Your task to perform on an android device: Search for pizza restaurants on Maps Image 0: 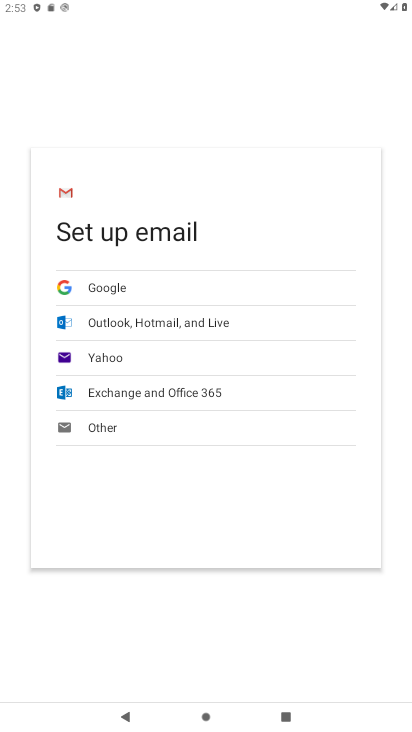
Step 0: press back button
Your task to perform on an android device: Search for pizza restaurants on Maps Image 1: 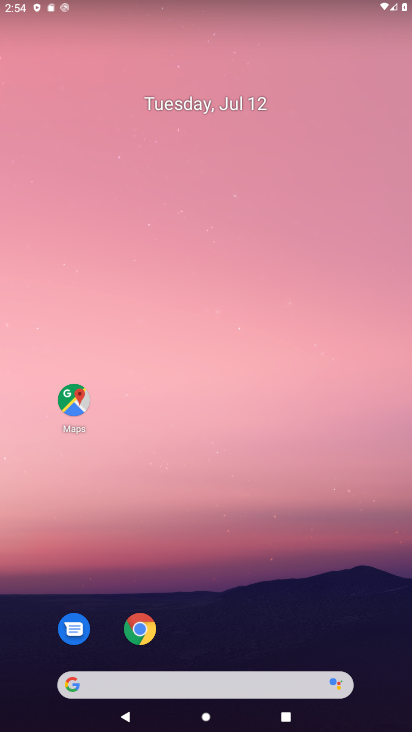
Step 1: drag from (296, 634) to (129, 49)
Your task to perform on an android device: Search for pizza restaurants on Maps Image 2: 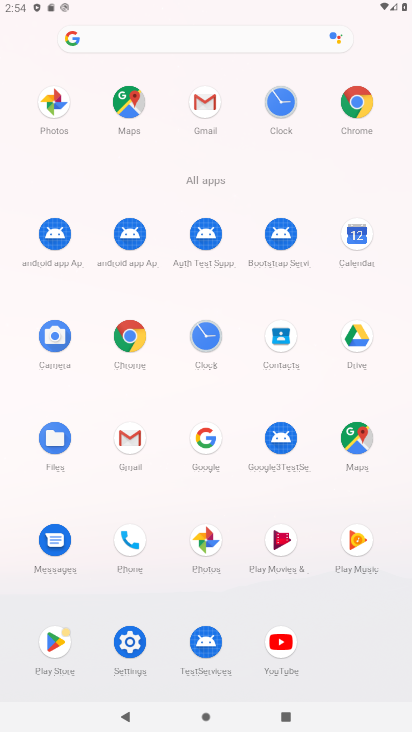
Step 2: click (207, 15)
Your task to perform on an android device: Search for pizza restaurants on Maps Image 3: 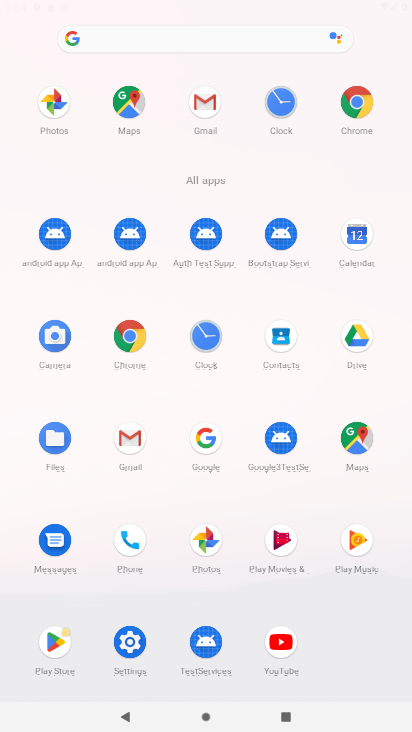
Step 3: click (157, 6)
Your task to perform on an android device: Search for pizza restaurants on Maps Image 4: 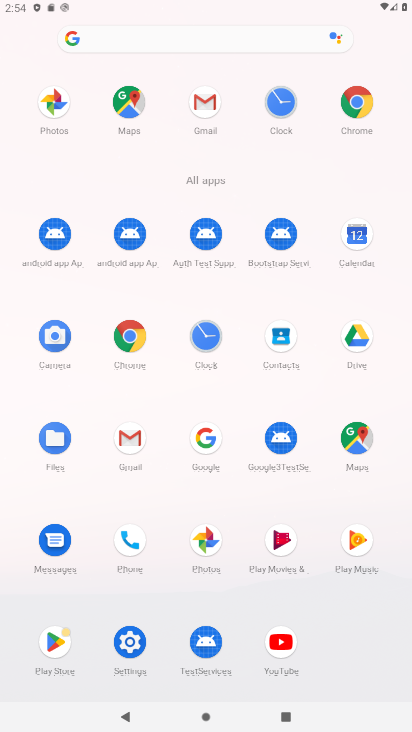
Step 4: click (346, 439)
Your task to perform on an android device: Search for pizza restaurants on Maps Image 5: 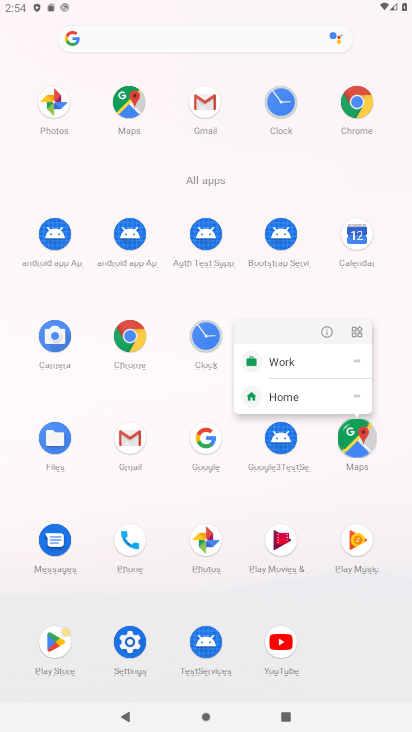
Step 5: click (360, 434)
Your task to perform on an android device: Search for pizza restaurants on Maps Image 6: 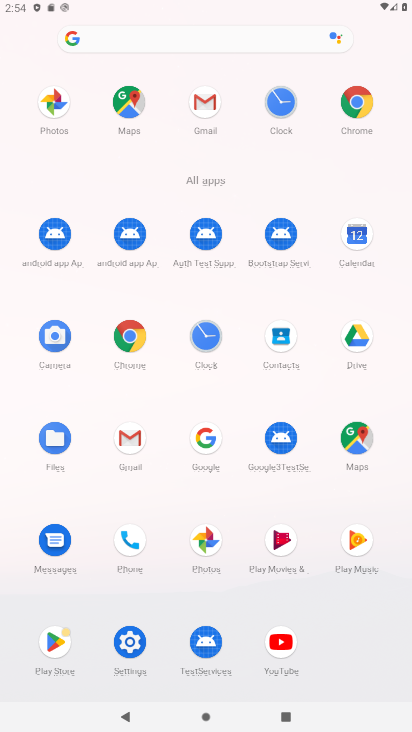
Step 6: click (365, 432)
Your task to perform on an android device: Search for pizza restaurants on Maps Image 7: 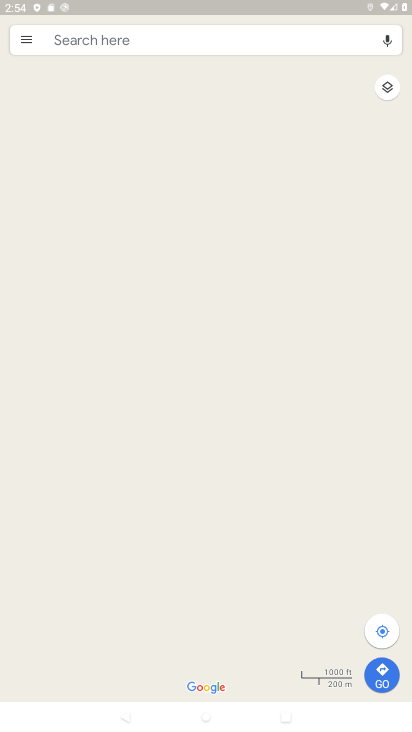
Step 7: click (65, 41)
Your task to perform on an android device: Search for pizza restaurants on Maps Image 8: 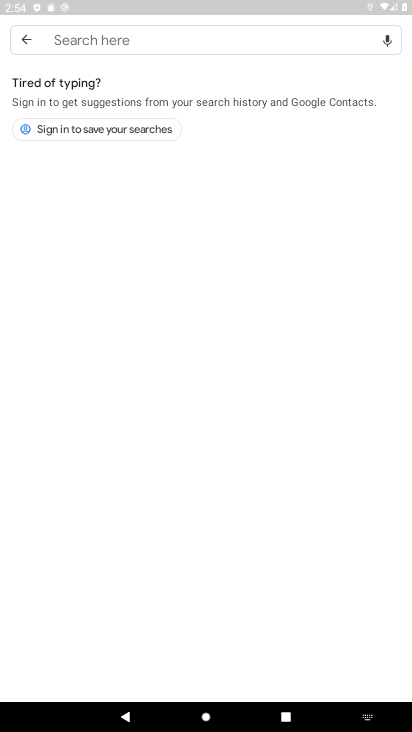
Step 8: click (14, 28)
Your task to perform on an android device: Search for pizza restaurants on Maps Image 9: 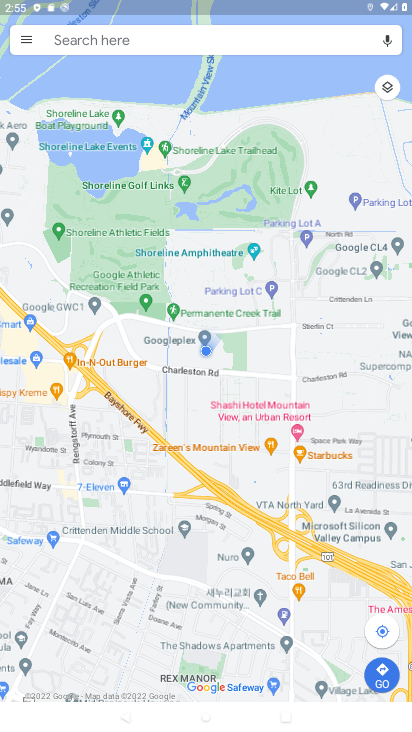
Step 9: click (83, 24)
Your task to perform on an android device: Search for pizza restaurants on Maps Image 10: 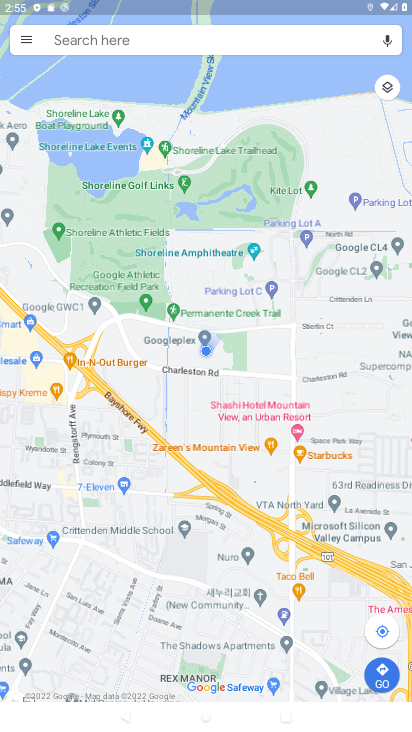
Step 10: click (67, 35)
Your task to perform on an android device: Search for pizza restaurants on Maps Image 11: 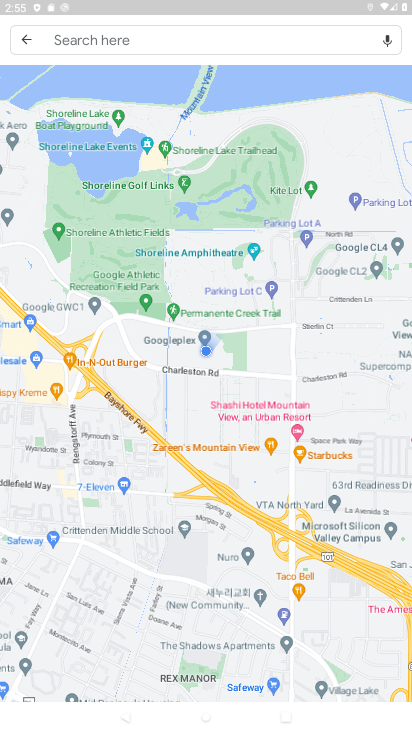
Step 11: click (73, 41)
Your task to perform on an android device: Search for pizza restaurants on Maps Image 12: 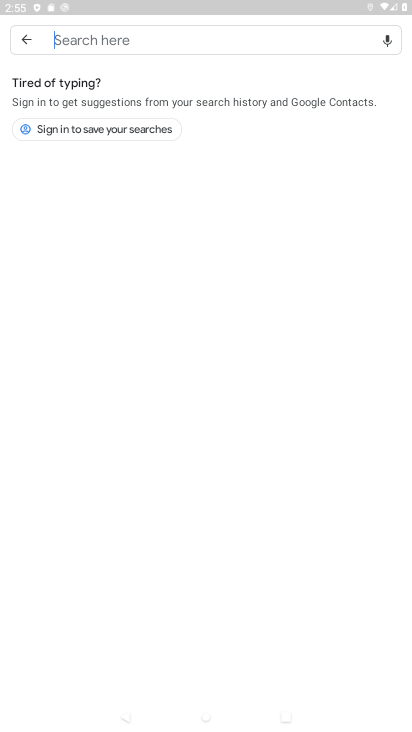
Step 12: click (73, 41)
Your task to perform on an android device: Search for pizza restaurants on Maps Image 13: 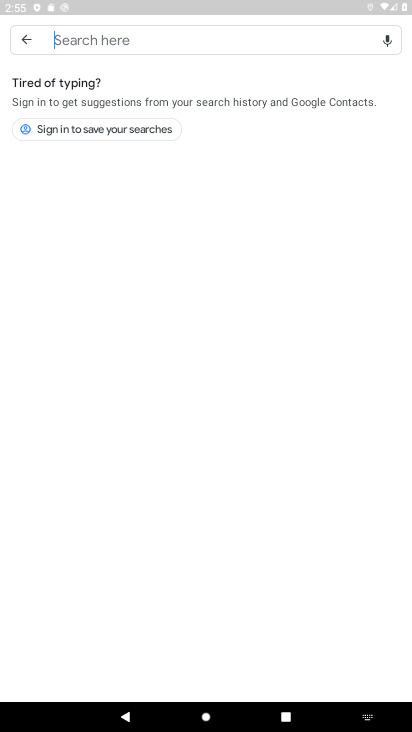
Step 13: click (88, 41)
Your task to perform on an android device: Search for pizza restaurants on Maps Image 14: 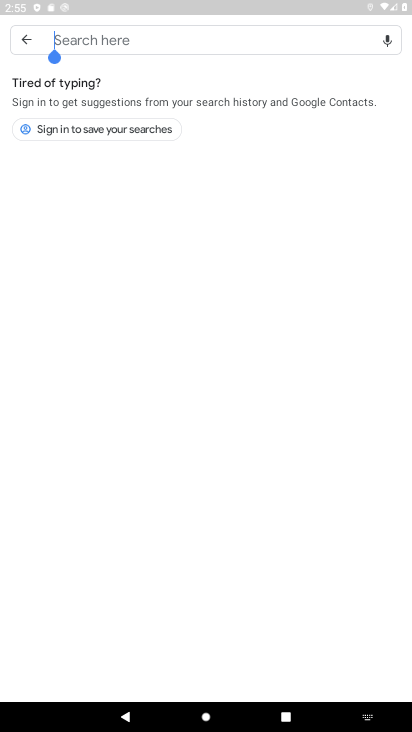
Step 14: click (89, 50)
Your task to perform on an android device: Search for pizza restaurants on Maps Image 15: 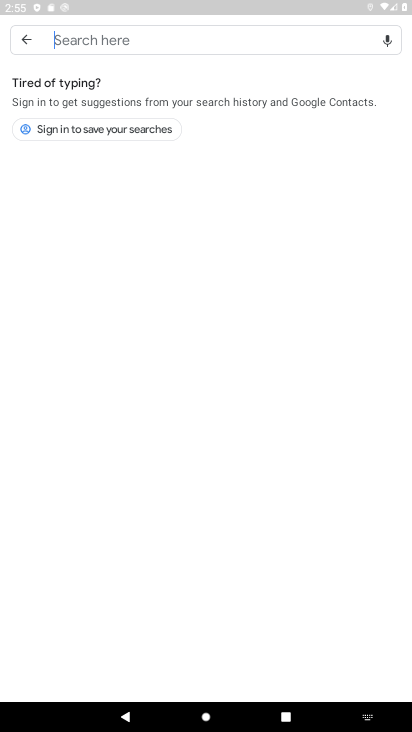
Step 15: type "pizza restaurants"
Your task to perform on an android device: Search for pizza restaurants on Maps Image 16: 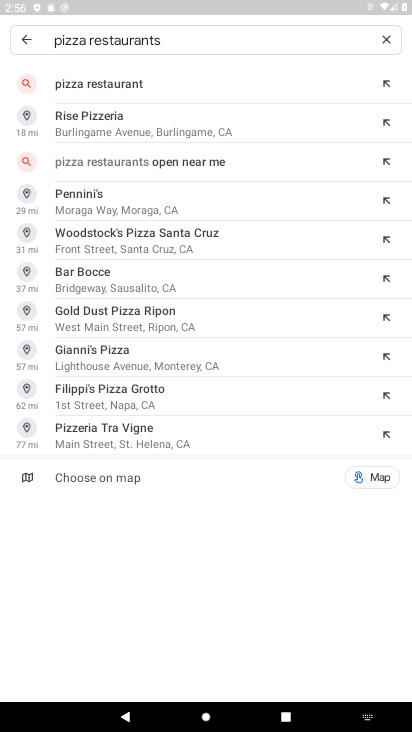
Step 16: click (155, 76)
Your task to perform on an android device: Search for pizza restaurants on Maps Image 17: 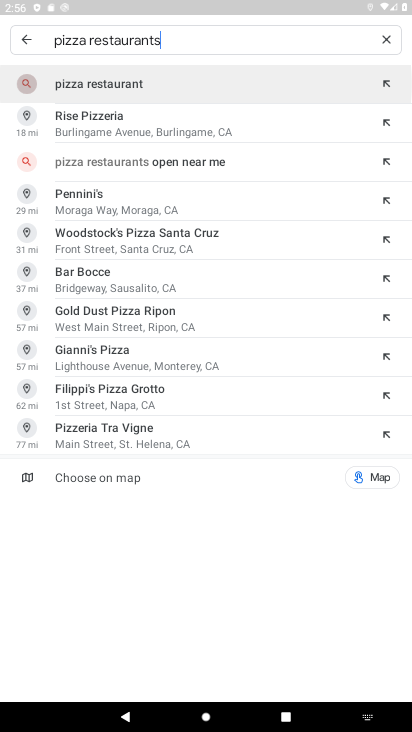
Step 17: click (152, 76)
Your task to perform on an android device: Search for pizza restaurants on Maps Image 18: 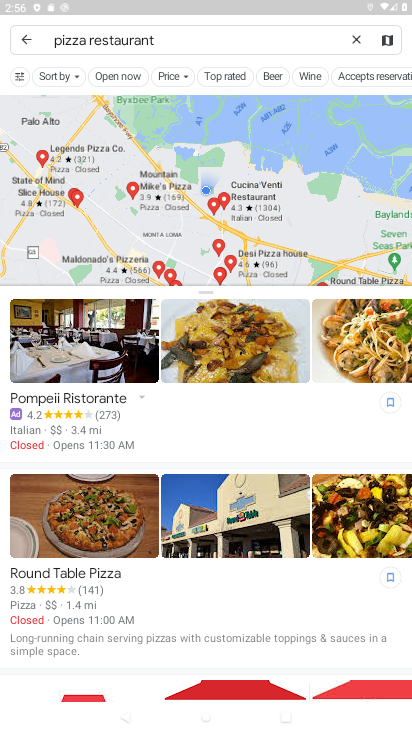
Step 18: task complete